Your task to perform on an android device: toggle translation in the chrome app Image 0: 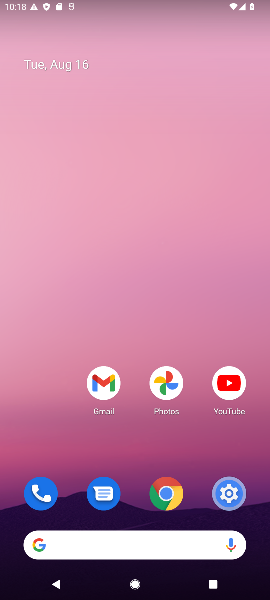
Step 0: click (178, 498)
Your task to perform on an android device: toggle translation in the chrome app Image 1: 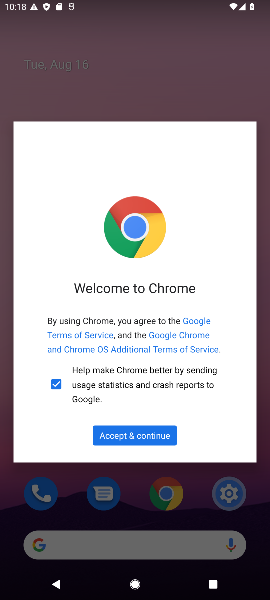
Step 1: click (139, 435)
Your task to perform on an android device: toggle translation in the chrome app Image 2: 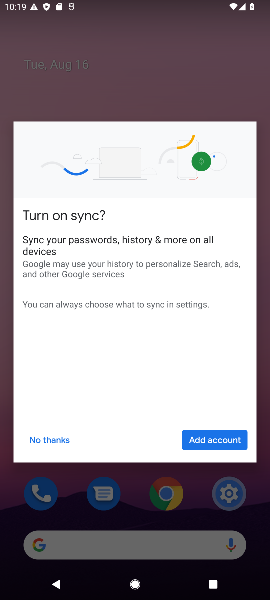
Step 2: click (60, 441)
Your task to perform on an android device: toggle translation in the chrome app Image 3: 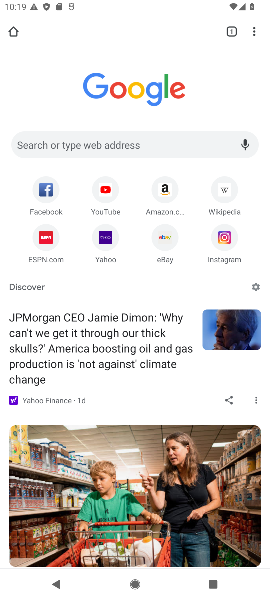
Step 3: click (252, 38)
Your task to perform on an android device: toggle translation in the chrome app Image 4: 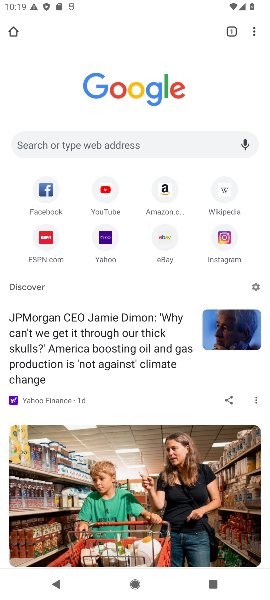
Step 4: click (255, 30)
Your task to perform on an android device: toggle translation in the chrome app Image 5: 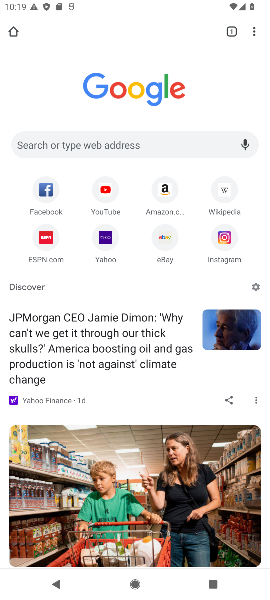
Step 5: click (255, 30)
Your task to perform on an android device: toggle translation in the chrome app Image 6: 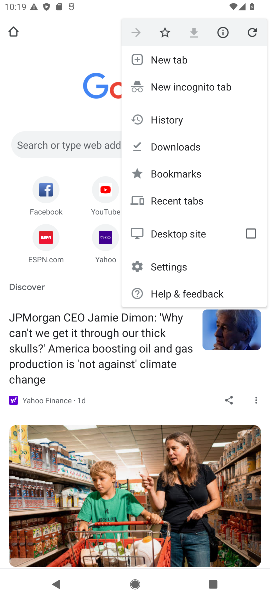
Step 6: click (166, 265)
Your task to perform on an android device: toggle translation in the chrome app Image 7: 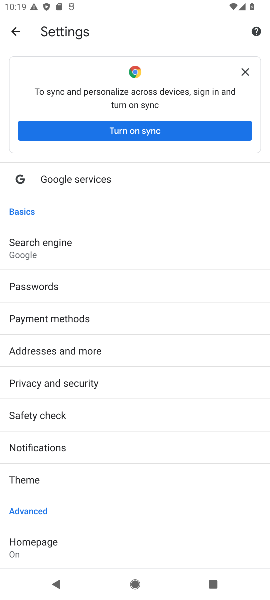
Step 7: drag from (104, 489) to (89, 242)
Your task to perform on an android device: toggle translation in the chrome app Image 8: 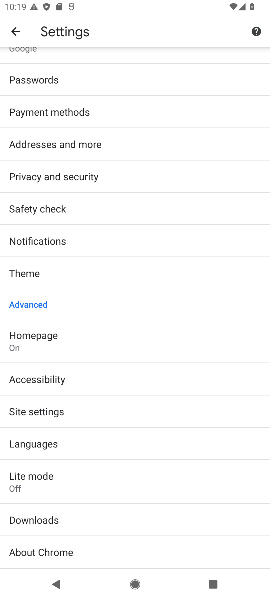
Step 8: click (59, 444)
Your task to perform on an android device: toggle translation in the chrome app Image 9: 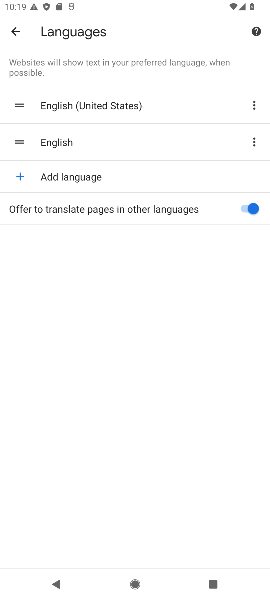
Step 9: click (248, 204)
Your task to perform on an android device: toggle translation in the chrome app Image 10: 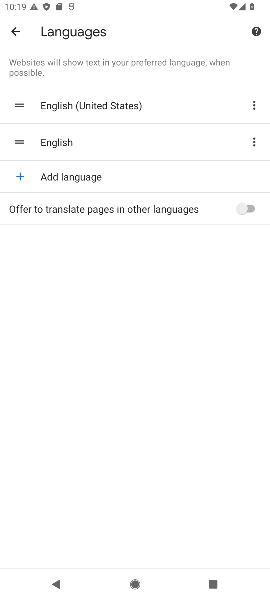
Step 10: task complete